Your task to perform on an android device: Go to Amazon Image 0: 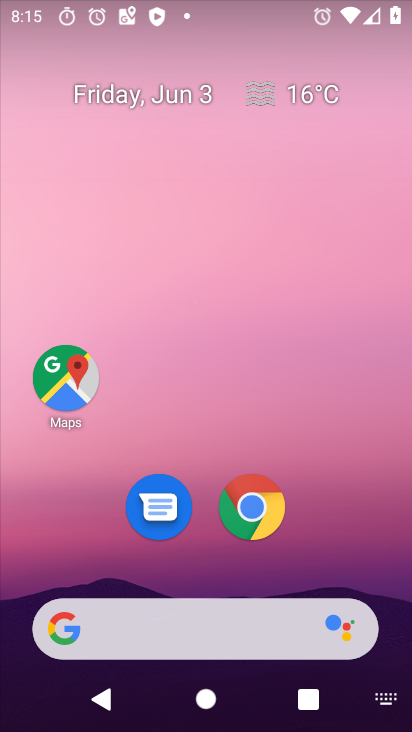
Step 0: click (257, 511)
Your task to perform on an android device: Go to Amazon Image 1: 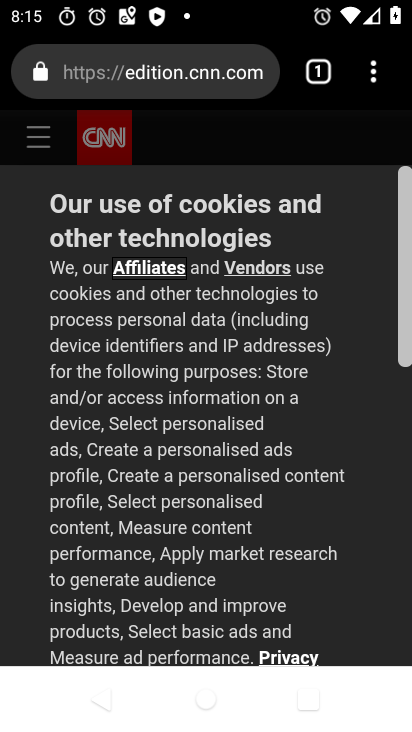
Step 1: click (322, 60)
Your task to perform on an android device: Go to Amazon Image 2: 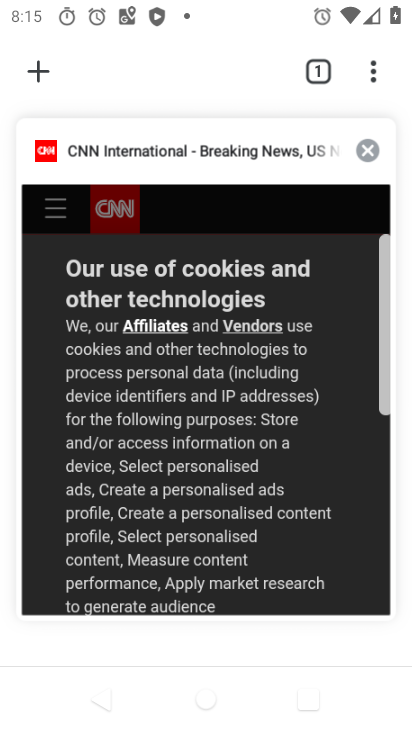
Step 2: click (42, 83)
Your task to perform on an android device: Go to Amazon Image 3: 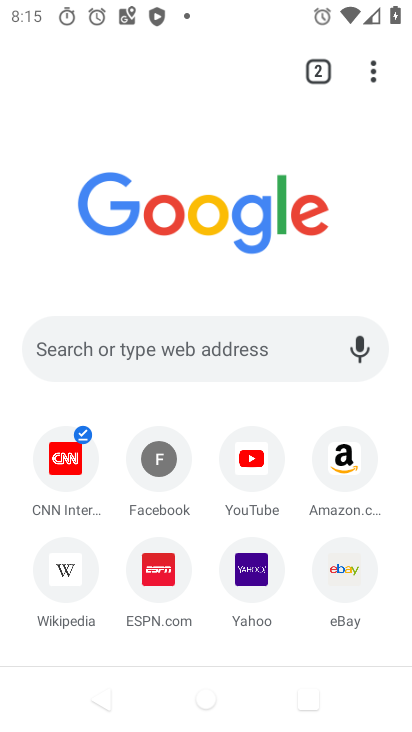
Step 3: click (341, 465)
Your task to perform on an android device: Go to Amazon Image 4: 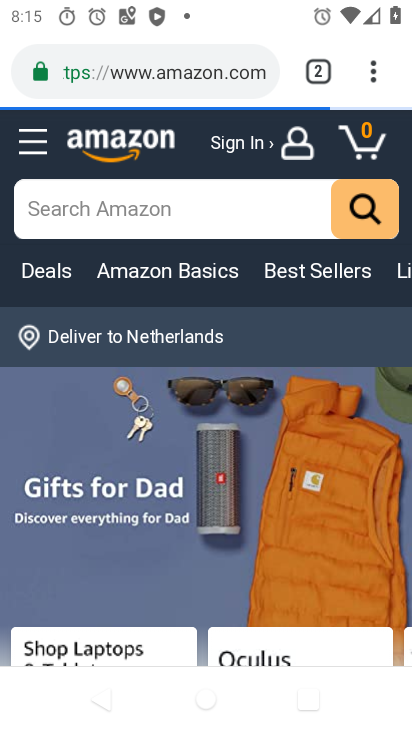
Step 4: task complete